Your task to perform on an android device: Open the calendar app, open the side menu, and click the "Day" option Image 0: 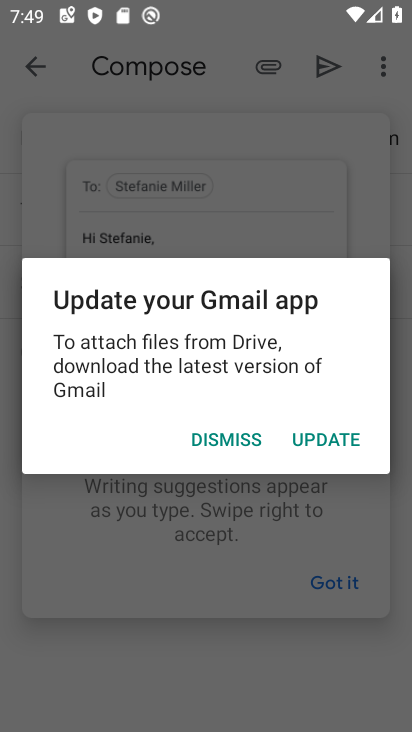
Step 0: press home button
Your task to perform on an android device: Open the calendar app, open the side menu, and click the "Day" option Image 1: 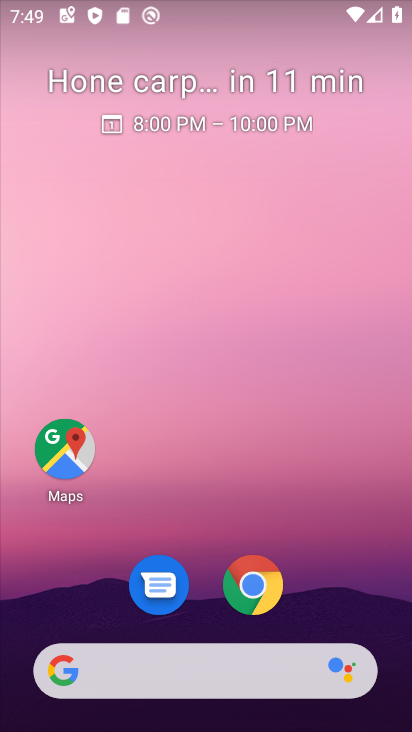
Step 1: drag from (318, 429) to (291, 52)
Your task to perform on an android device: Open the calendar app, open the side menu, and click the "Day" option Image 2: 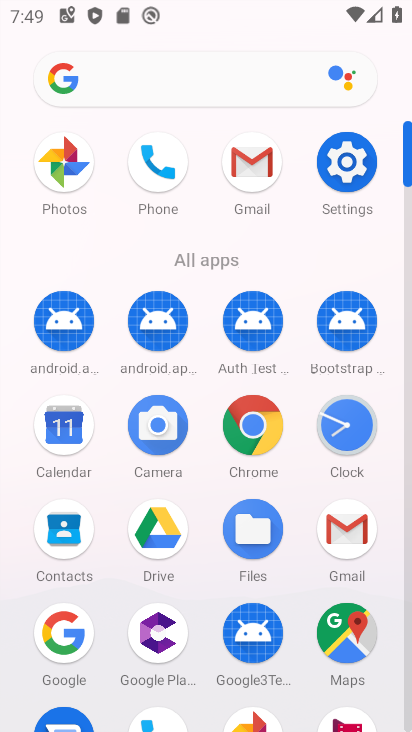
Step 2: click (67, 431)
Your task to perform on an android device: Open the calendar app, open the side menu, and click the "Day" option Image 3: 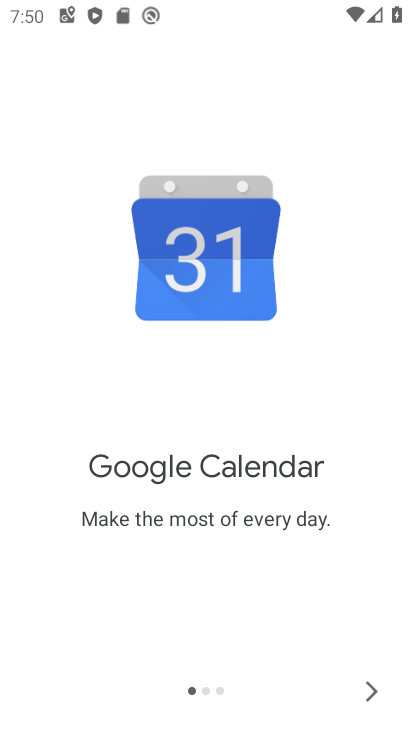
Step 3: click (366, 684)
Your task to perform on an android device: Open the calendar app, open the side menu, and click the "Day" option Image 4: 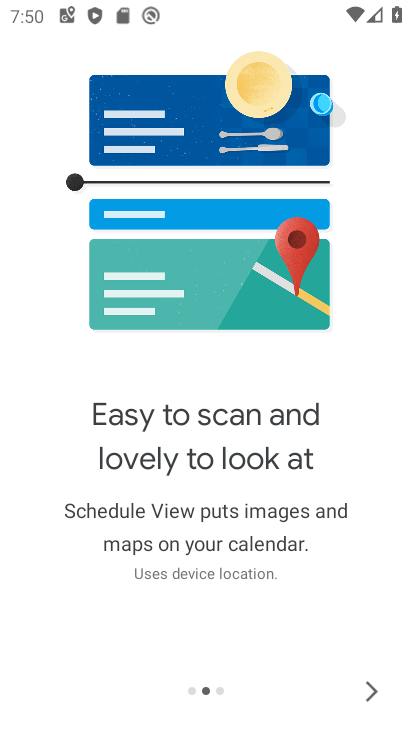
Step 4: click (366, 684)
Your task to perform on an android device: Open the calendar app, open the side menu, and click the "Day" option Image 5: 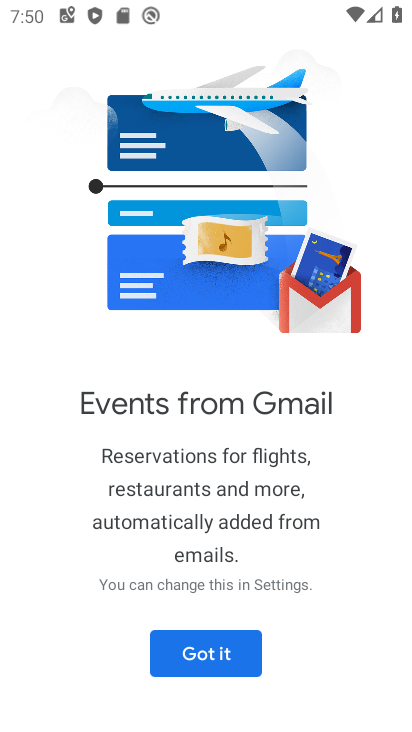
Step 5: click (240, 657)
Your task to perform on an android device: Open the calendar app, open the side menu, and click the "Day" option Image 6: 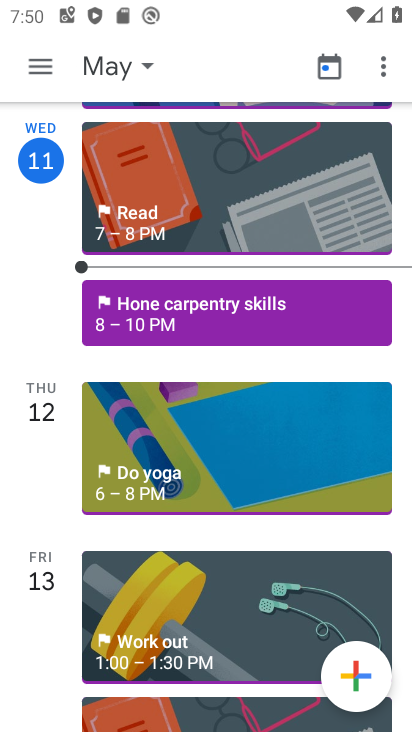
Step 6: click (38, 63)
Your task to perform on an android device: Open the calendar app, open the side menu, and click the "Day" option Image 7: 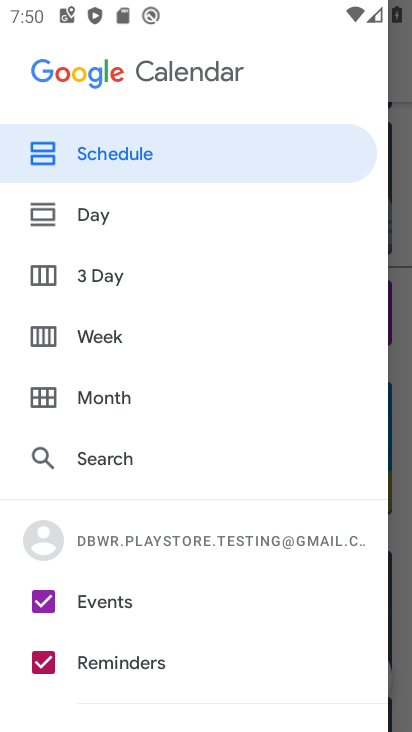
Step 7: click (108, 205)
Your task to perform on an android device: Open the calendar app, open the side menu, and click the "Day" option Image 8: 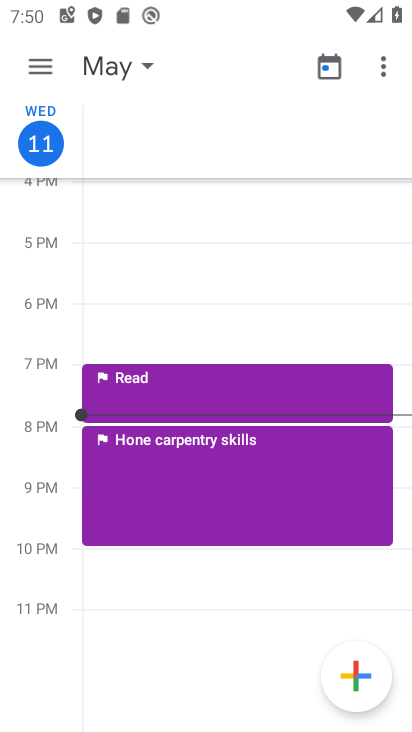
Step 8: task complete